Your task to perform on an android device: Clear the shopping cart on target. Add "panasonic triple a" to the cart on target, then select checkout. Image 0: 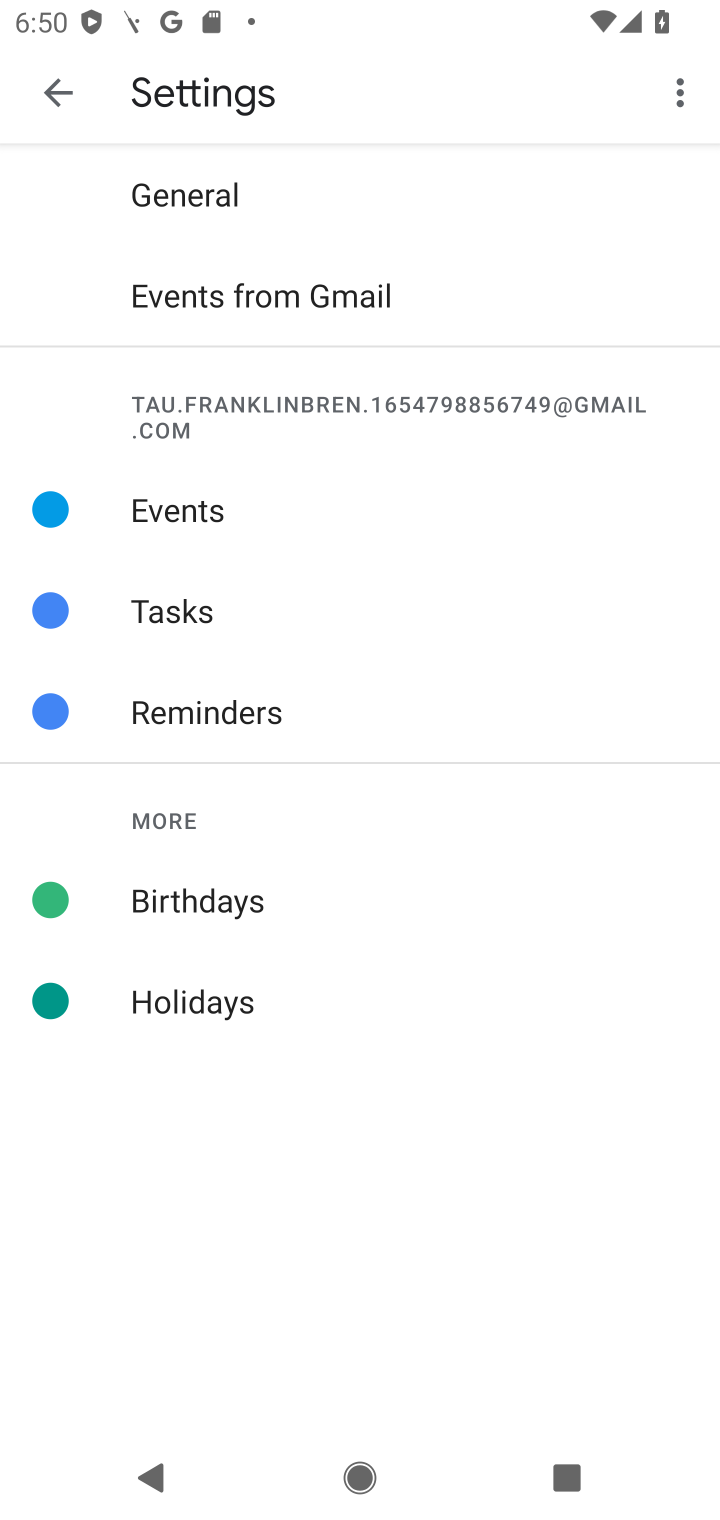
Step 0: press home button
Your task to perform on an android device: Clear the shopping cart on target. Add "panasonic triple a" to the cart on target, then select checkout. Image 1: 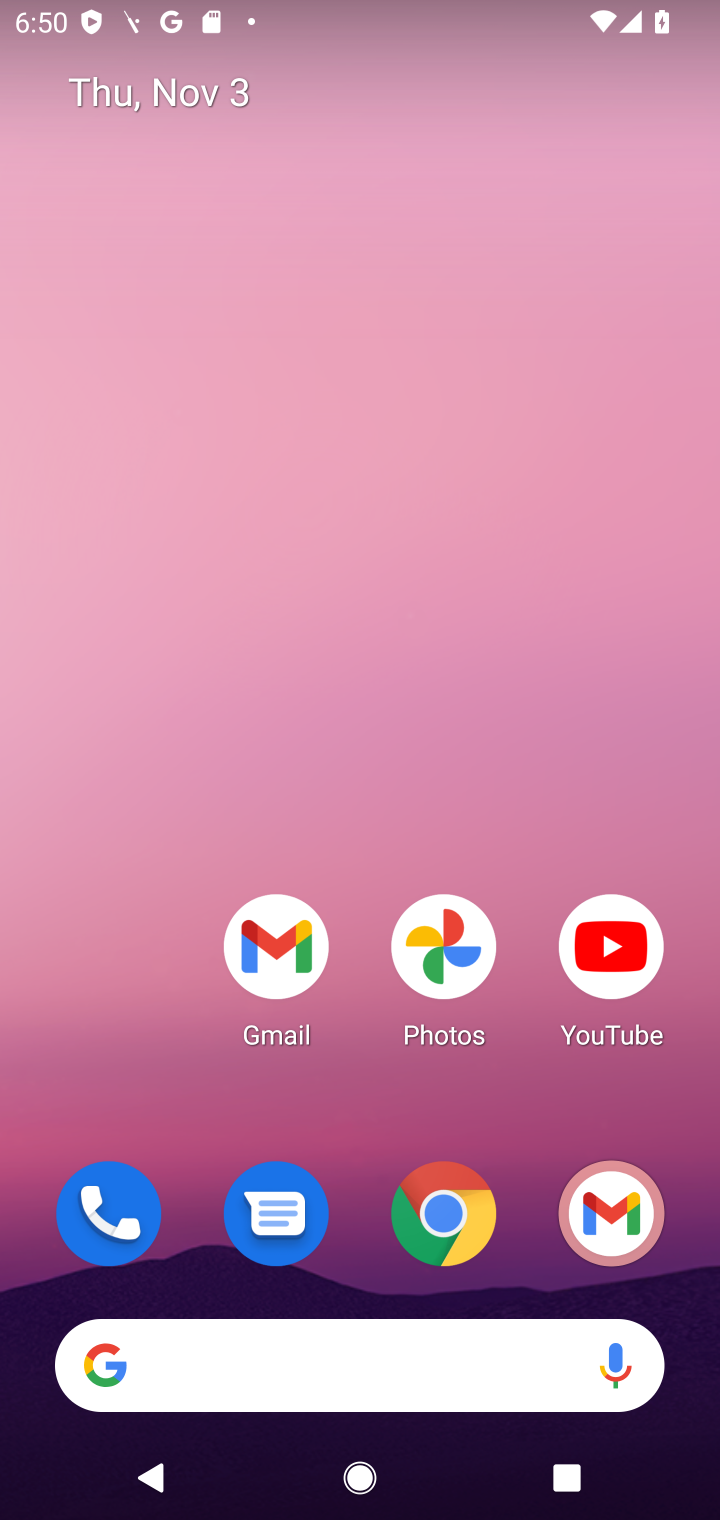
Step 1: click (437, 1224)
Your task to perform on an android device: Clear the shopping cart on target. Add "panasonic triple a" to the cart on target, then select checkout. Image 2: 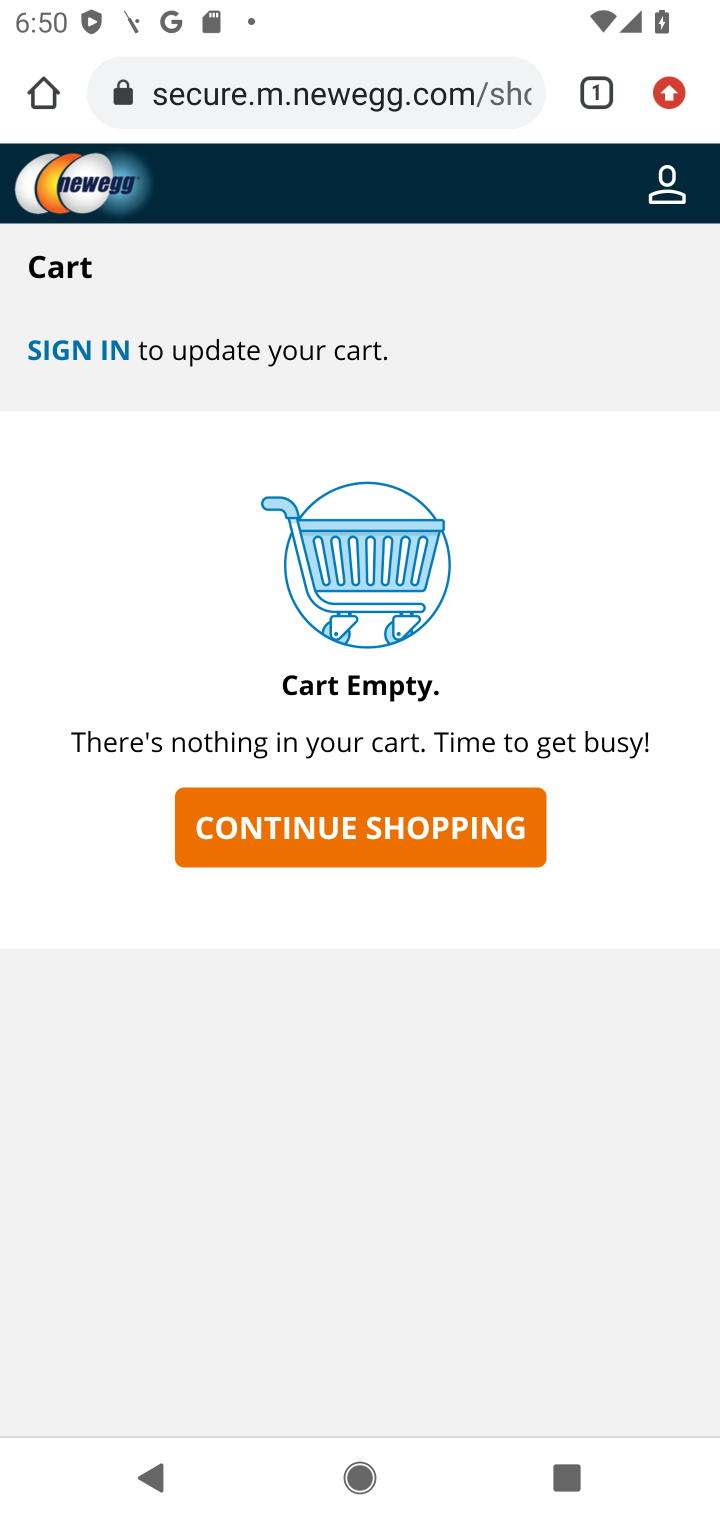
Step 2: click (343, 99)
Your task to perform on an android device: Clear the shopping cart on target. Add "panasonic triple a" to the cart on target, then select checkout. Image 3: 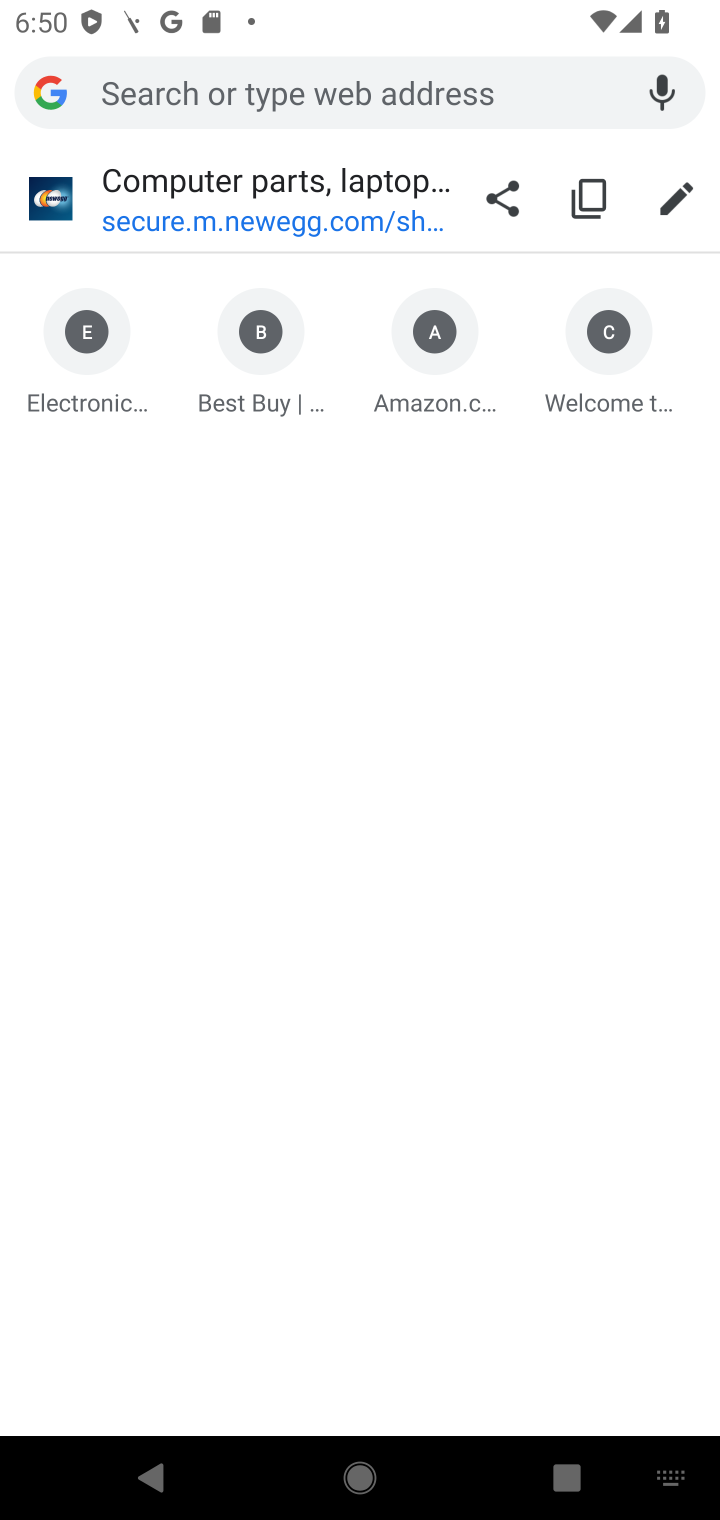
Step 3: type "target.com "
Your task to perform on an android device: Clear the shopping cart on target. Add "panasonic triple a" to the cart on target, then select checkout. Image 4: 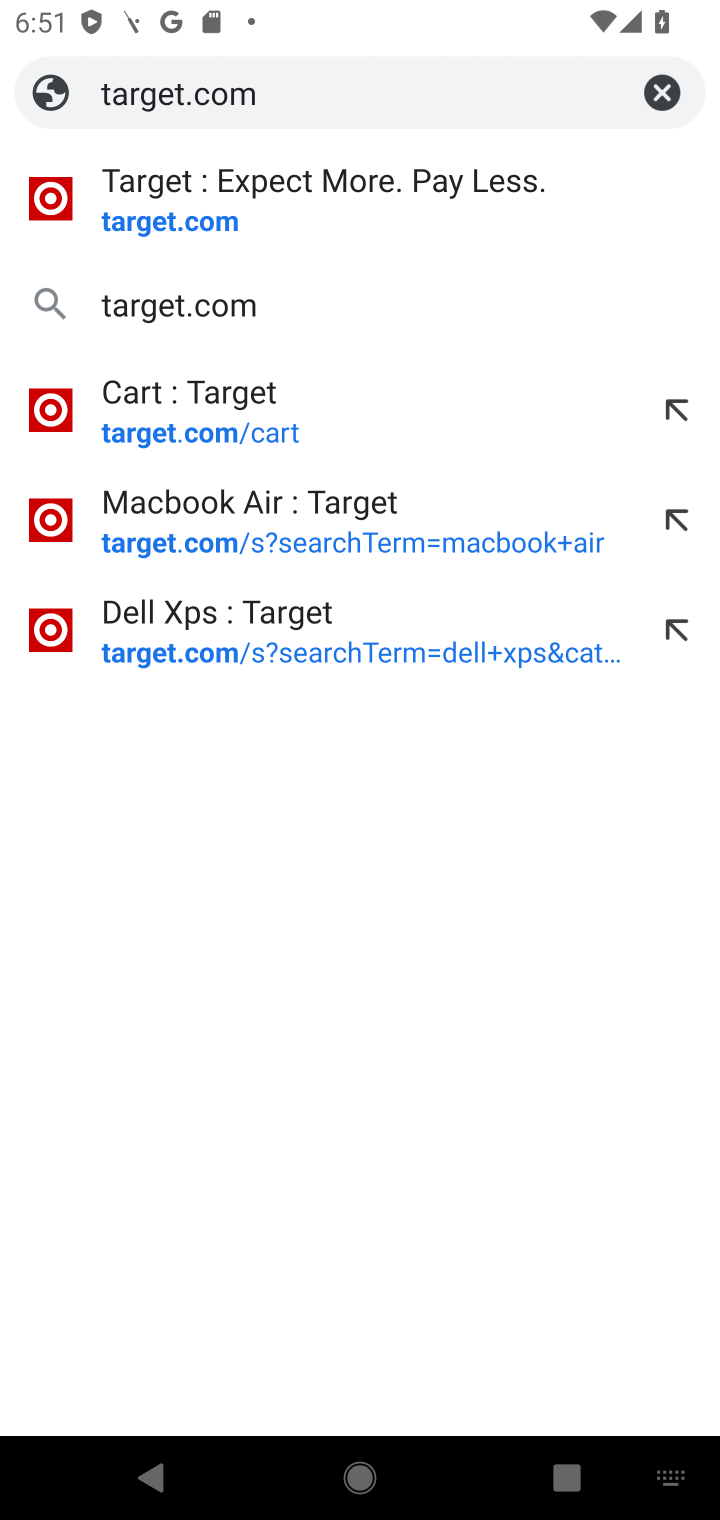
Step 4: click (185, 227)
Your task to perform on an android device: Clear the shopping cart on target. Add "panasonic triple a" to the cart on target, then select checkout. Image 5: 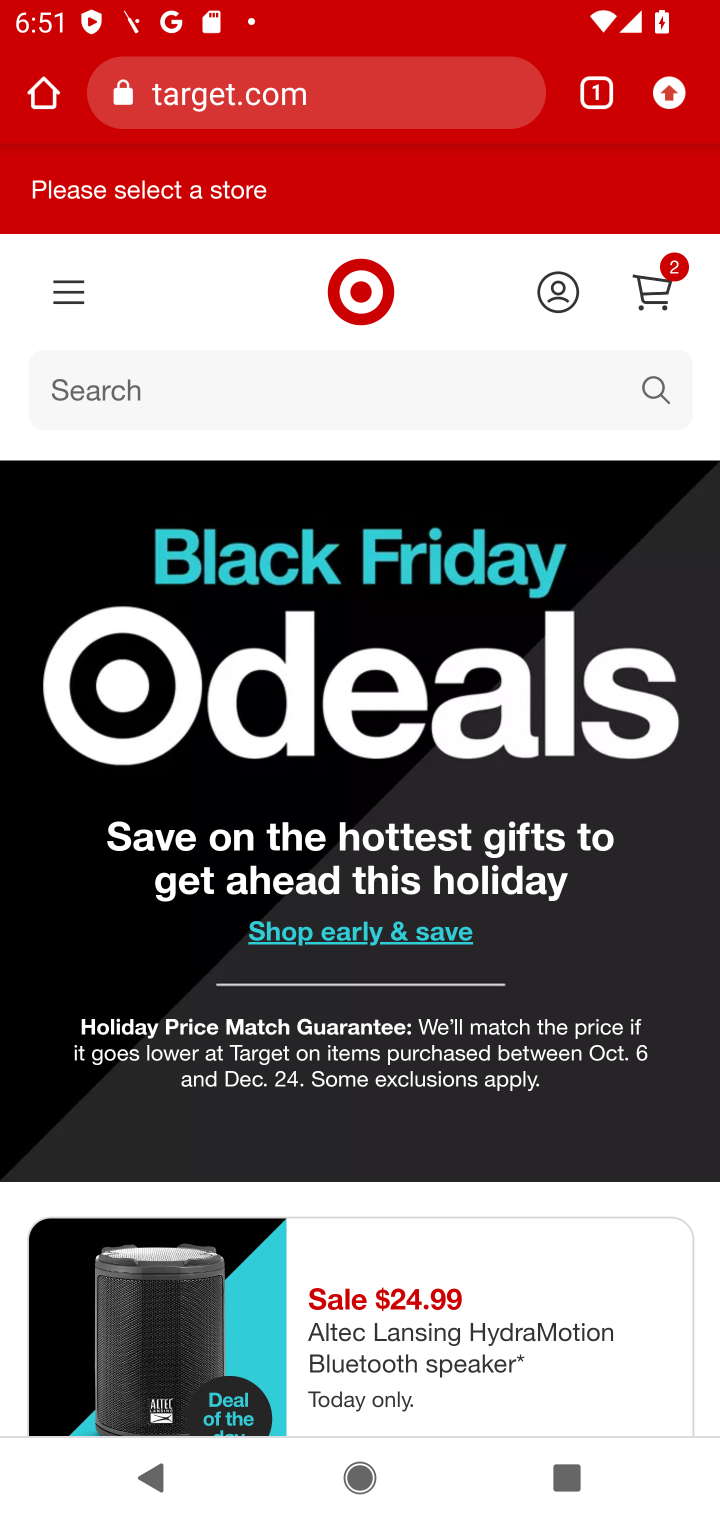
Step 5: click (653, 293)
Your task to perform on an android device: Clear the shopping cart on target. Add "panasonic triple a" to the cart on target, then select checkout. Image 6: 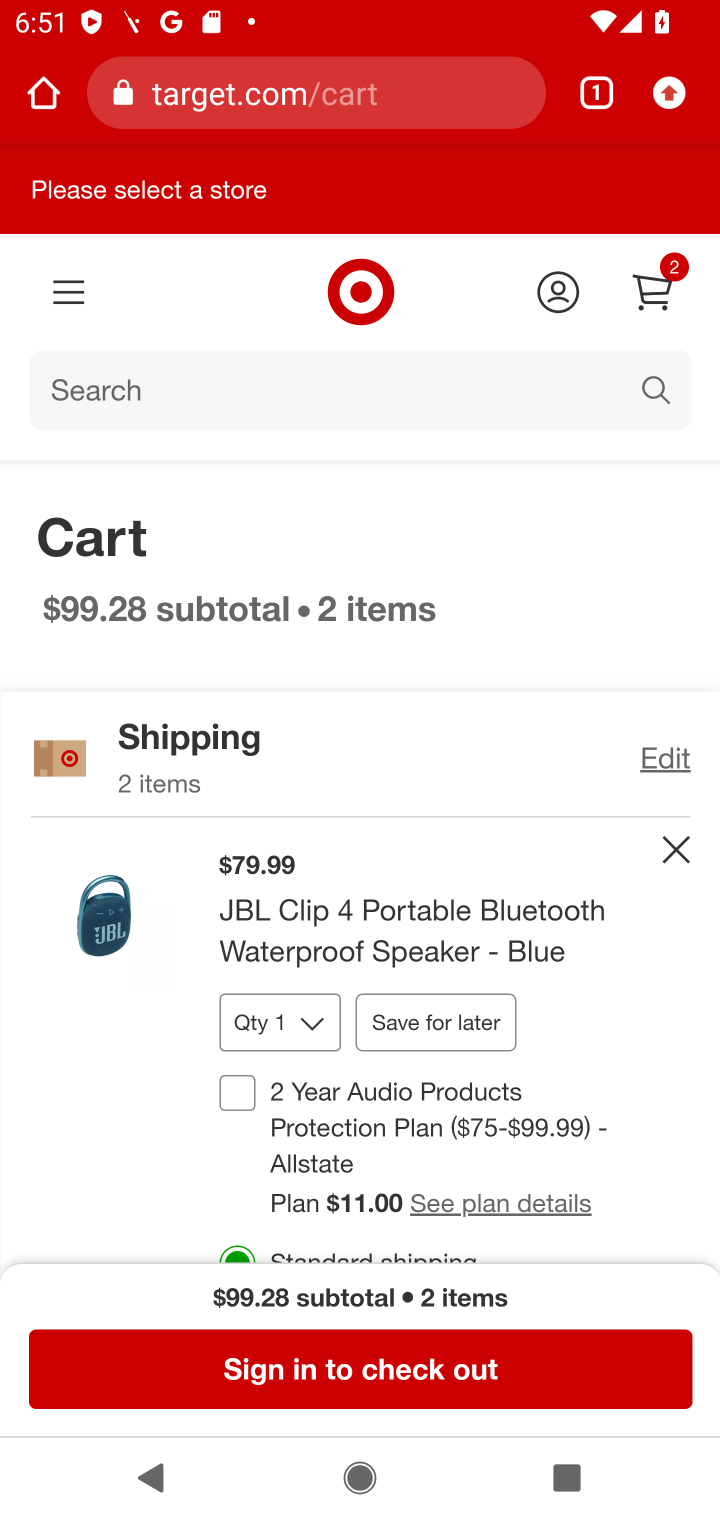
Step 6: click (672, 860)
Your task to perform on an android device: Clear the shopping cart on target. Add "panasonic triple a" to the cart on target, then select checkout. Image 7: 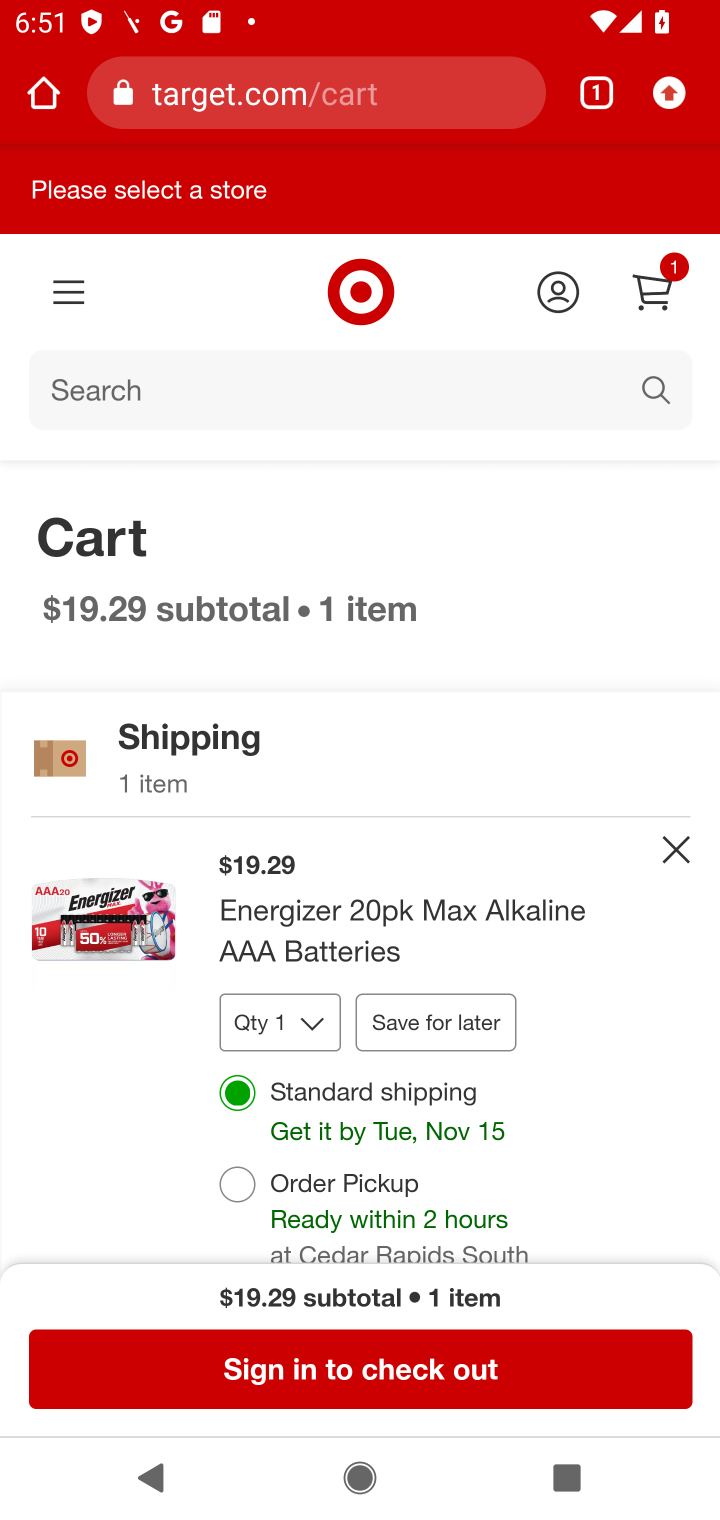
Step 7: click (682, 864)
Your task to perform on an android device: Clear the shopping cart on target. Add "panasonic triple a" to the cart on target, then select checkout. Image 8: 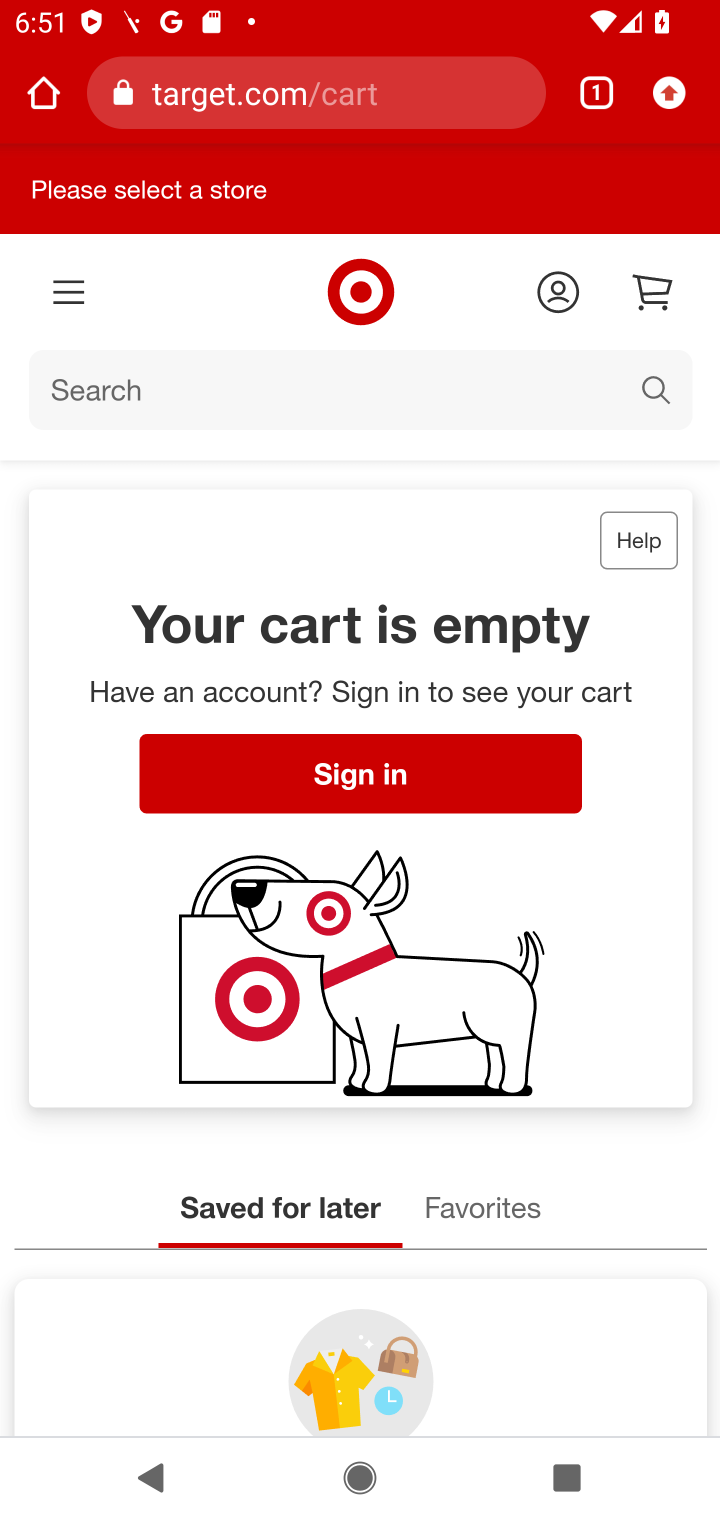
Step 8: click (657, 390)
Your task to perform on an android device: Clear the shopping cart on target. Add "panasonic triple a" to the cart on target, then select checkout. Image 9: 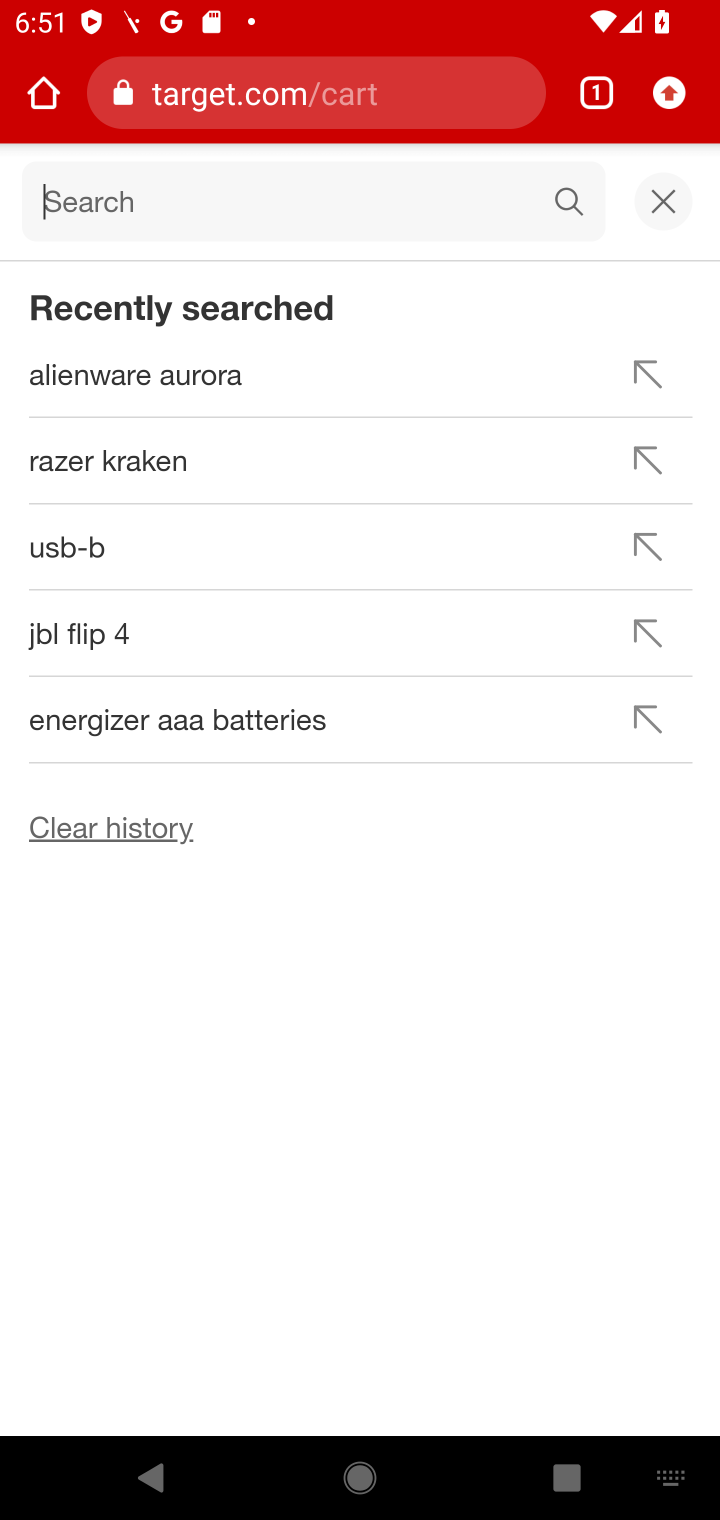
Step 9: type "panasonic triple a"
Your task to perform on an android device: Clear the shopping cart on target. Add "panasonic triple a" to the cart on target, then select checkout. Image 10: 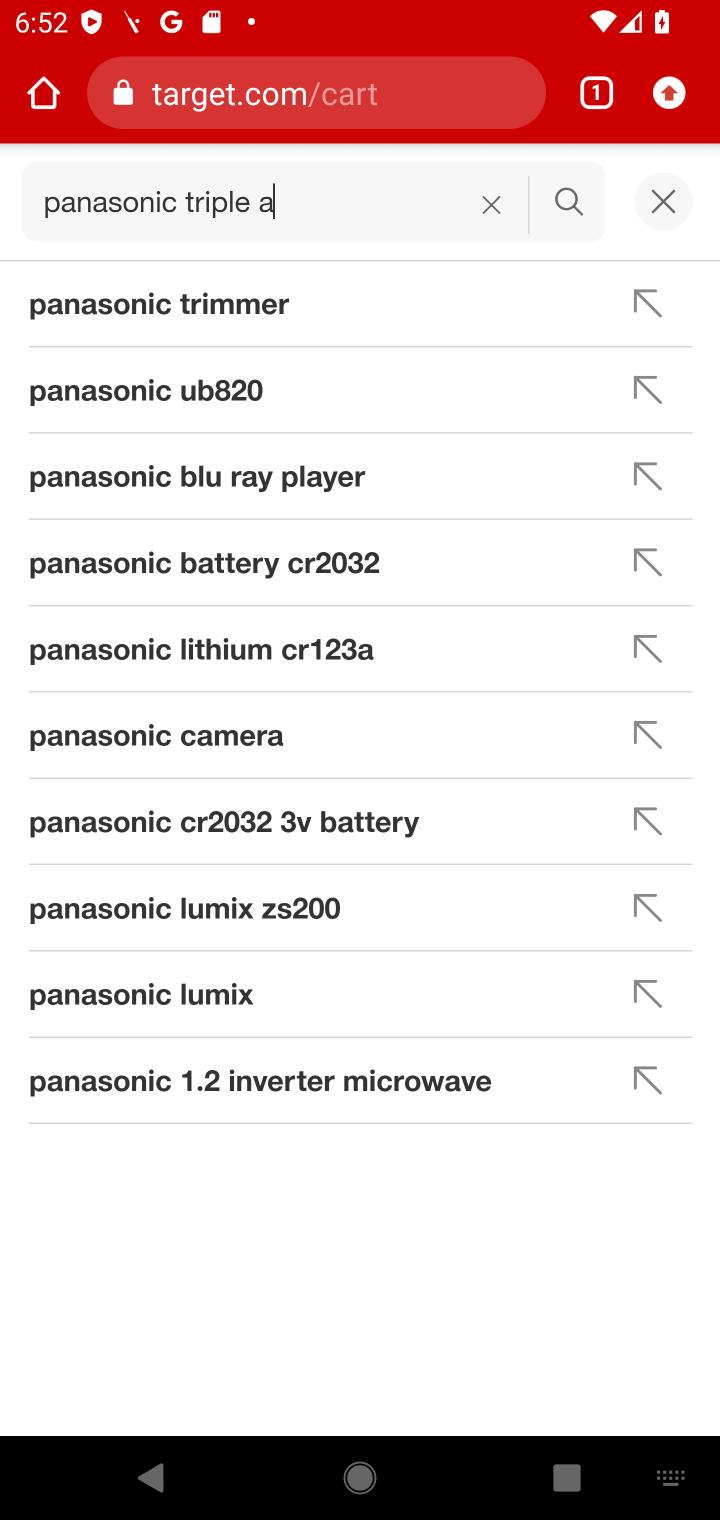
Step 10: click (561, 209)
Your task to perform on an android device: Clear the shopping cart on target. Add "panasonic triple a" to the cart on target, then select checkout. Image 11: 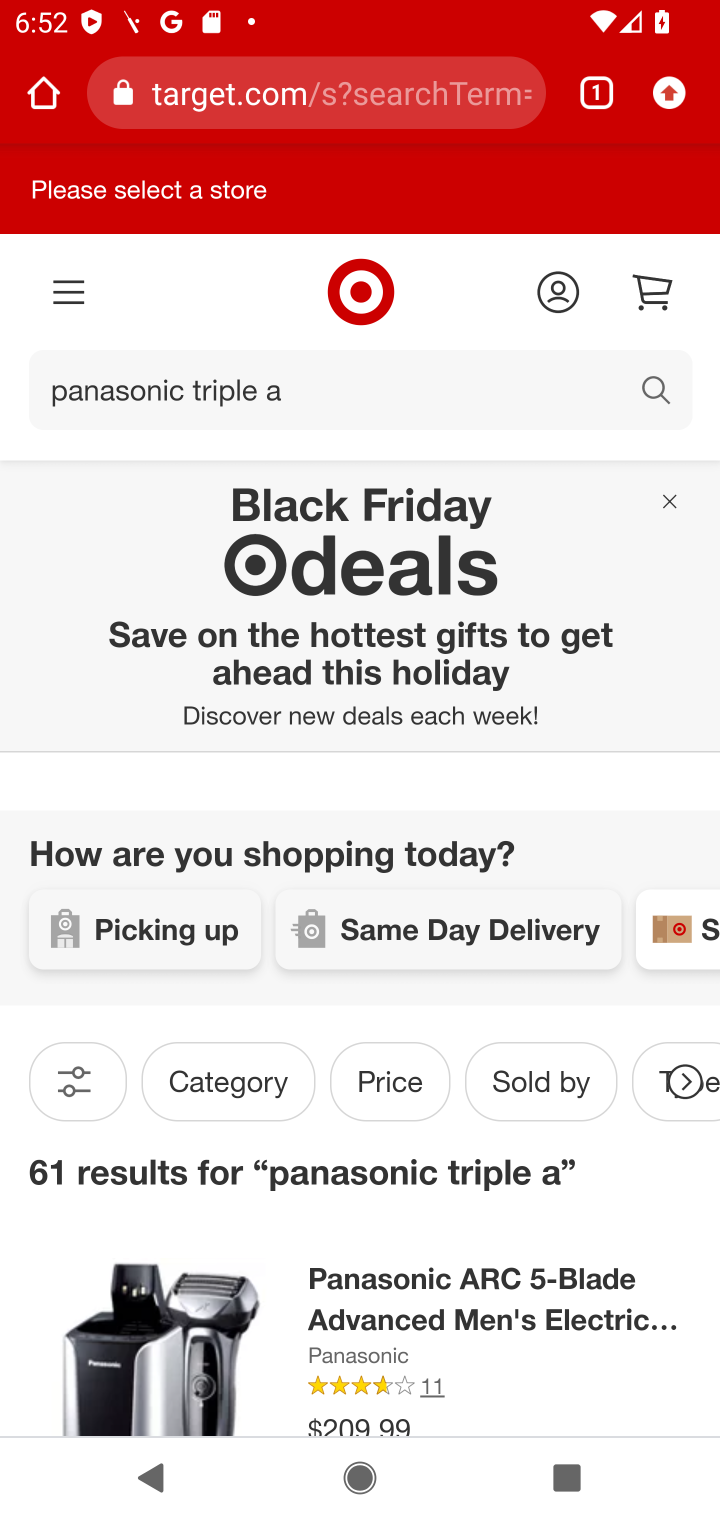
Step 11: task complete